Your task to perform on an android device: Go to settings Image 0: 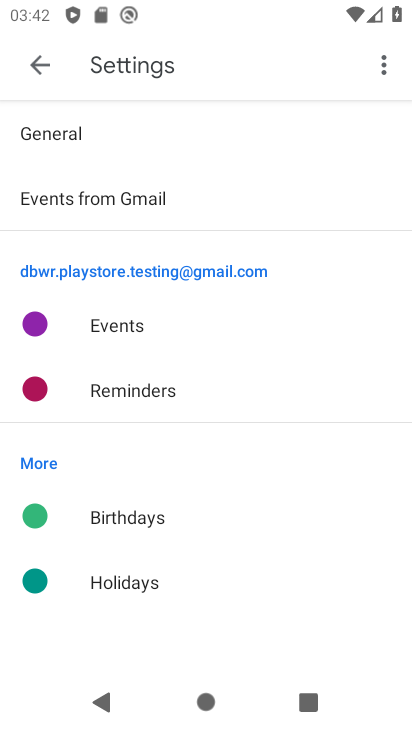
Step 0: press home button
Your task to perform on an android device: Go to settings Image 1: 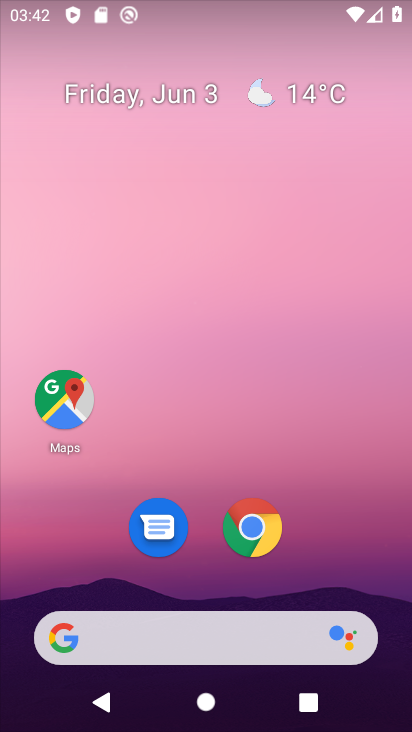
Step 1: drag from (334, 553) to (214, 2)
Your task to perform on an android device: Go to settings Image 2: 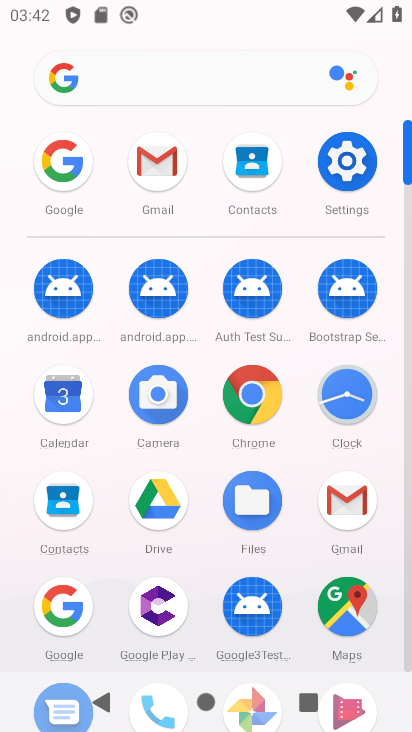
Step 2: click (347, 161)
Your task to perform on an android device: Go to settings Image 3: 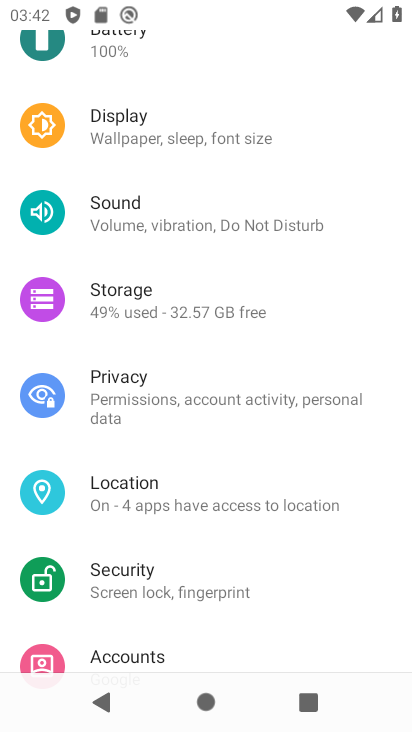
Step 3: task complete